Your task to perform on an android device: turn on the 24-hour format for clock Image 0: 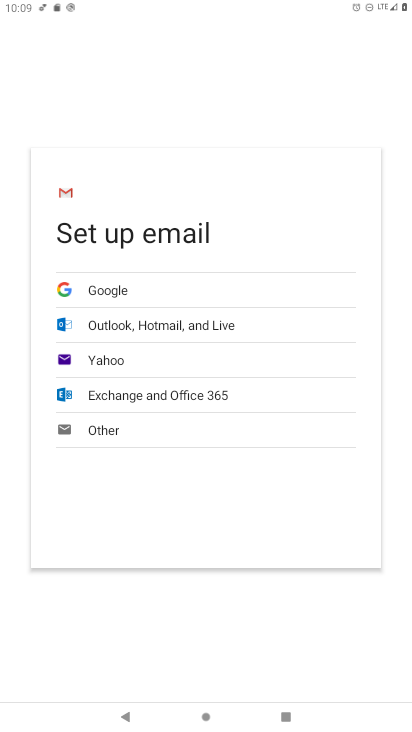
Step 0: press home button
Your task to perform on an android device: turn on the 24-hour format for clock Image 1: 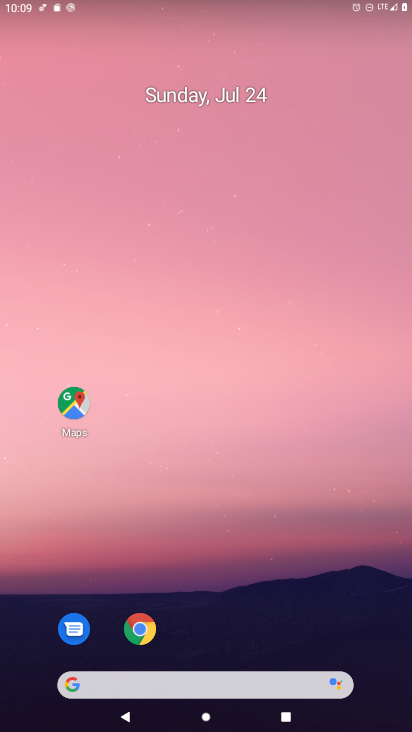
Step 1: drag from (356, 645) to (197, 23)
Your task to perform on an android device: turn on the 24-hour format for clock Image 2: 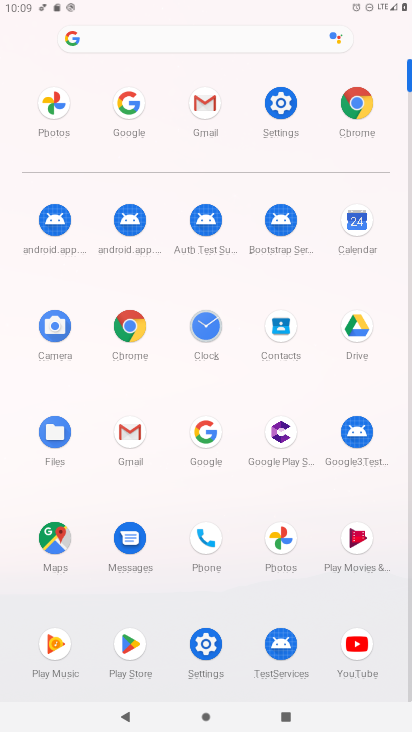
Step 2: click (206, 327)
Your task to perform on an android device: turn on the 24-hour format for clock Image 3: 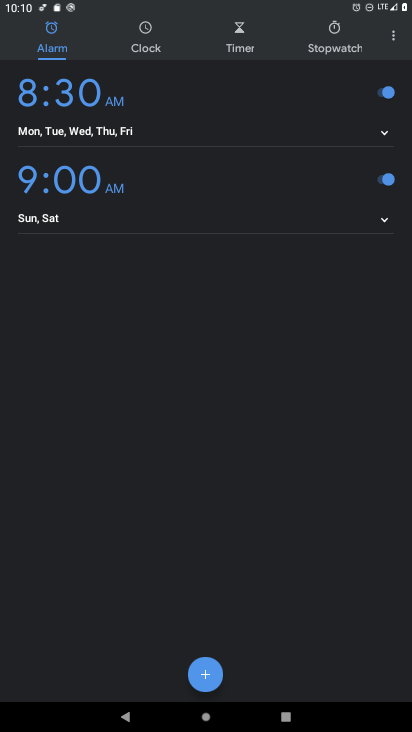
Step 3: click (387, 36)
Your task to perform on an android device: turn on the 24-hour format for clock Image 4: 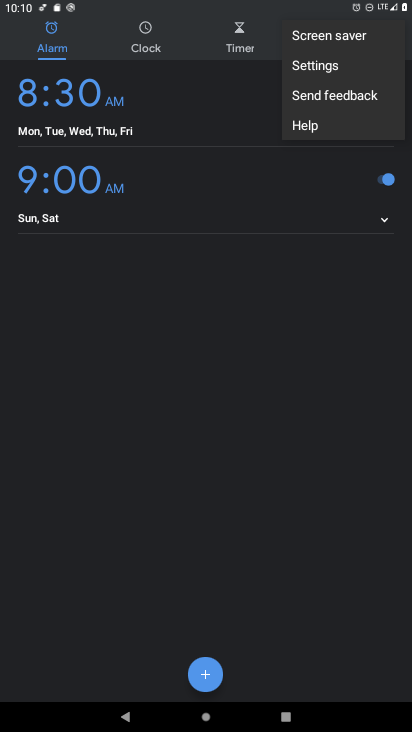
Step 4: click (329, 65)
Your task to perform on an android device: turn on the 24-hour format for clock Image 5: 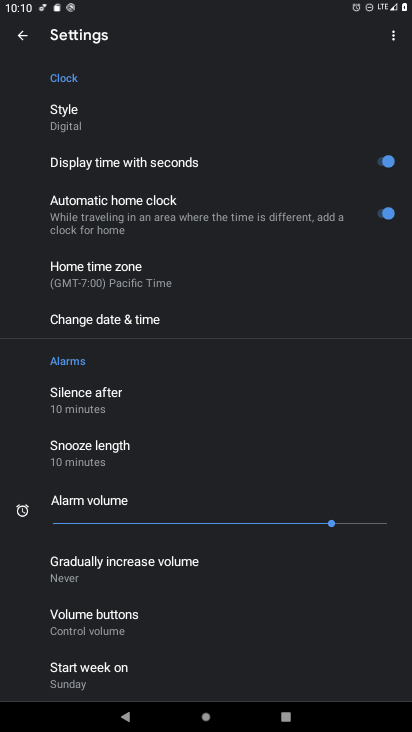
Step 5: click (134, 319)
Your task to perform on an android device: turn on the 24-hour format for clock Image 6: 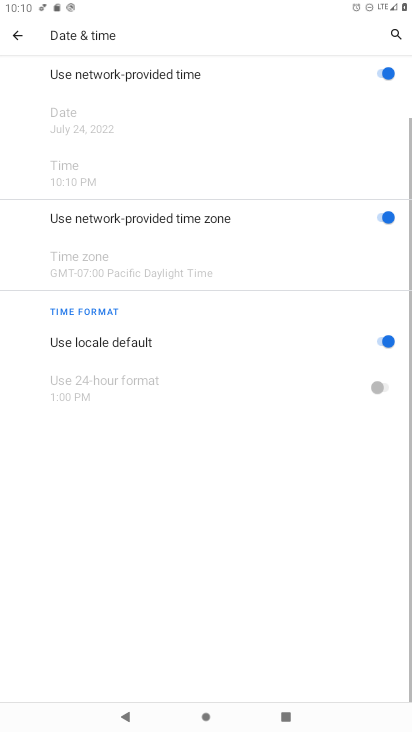
Step 6: task complete